Your task to perform on an android device: turn off sleep mode Image 0: 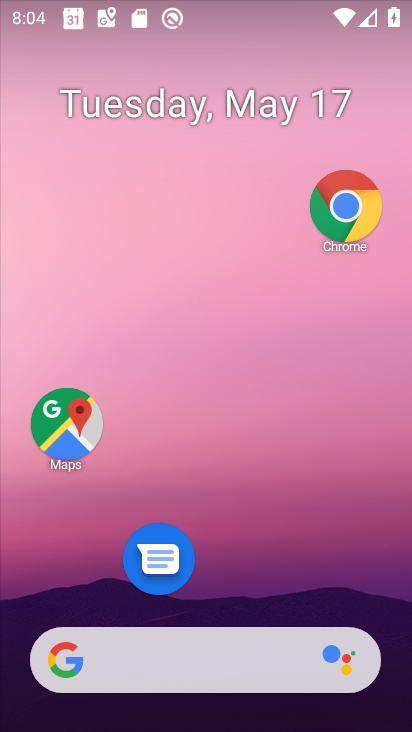
Step 0: drag from (251, 608) to (281, 91)
Your task to perform on an android device: turn off sleep mode Image 1: 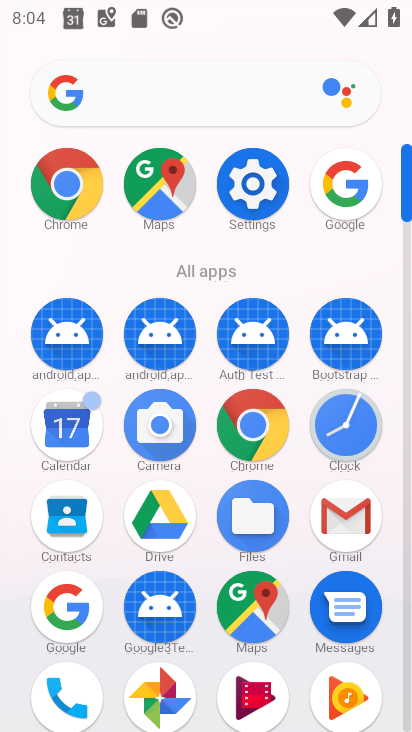
Step 1: click (255, 177)
Your task to perform on an android device: turn off sleep mode Image 2: 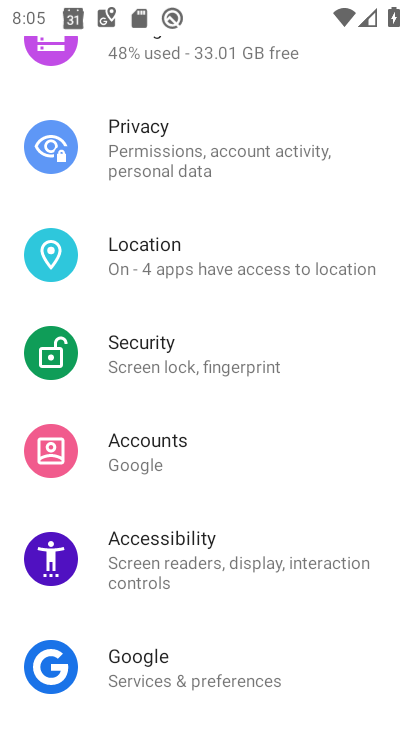
Step 2: drag from (221, 219) to (178, 715)
Your task to perform on an android device: turn off sleep mode Image 3: 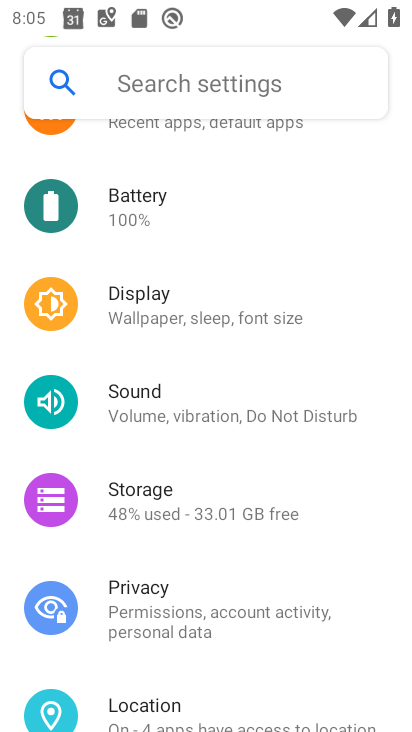
Step 3: click (215, 313)
Your task to perform on an android device: turn off sleep mode Image 4: 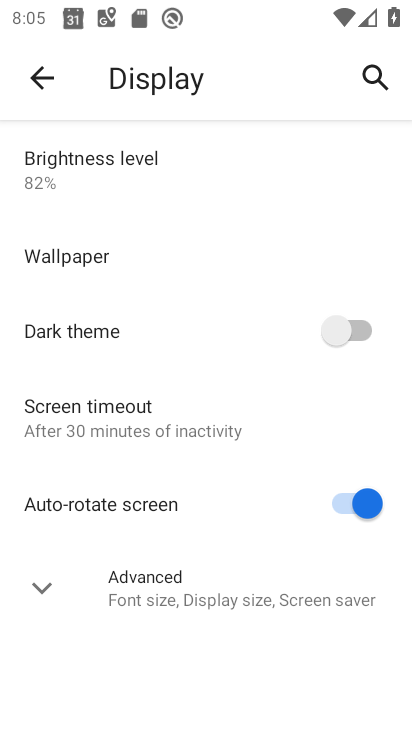
Step 4: click (133, 558)
Your task to perform on an android device: turn off sleep mode Image 5: 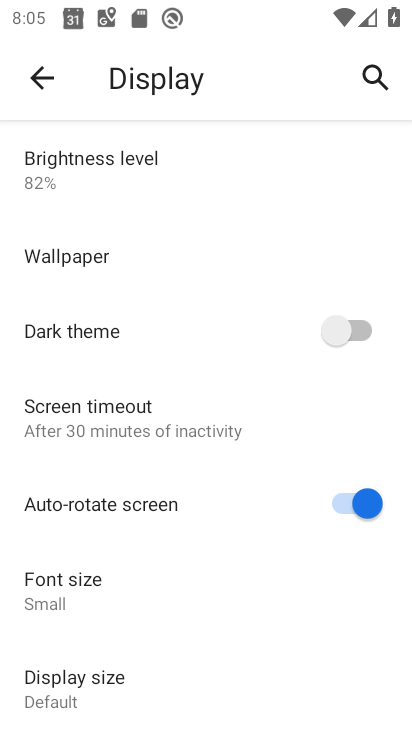
Step 5: task complete